Your task to perform on an android device: turn off picture-in-picture Image 0: 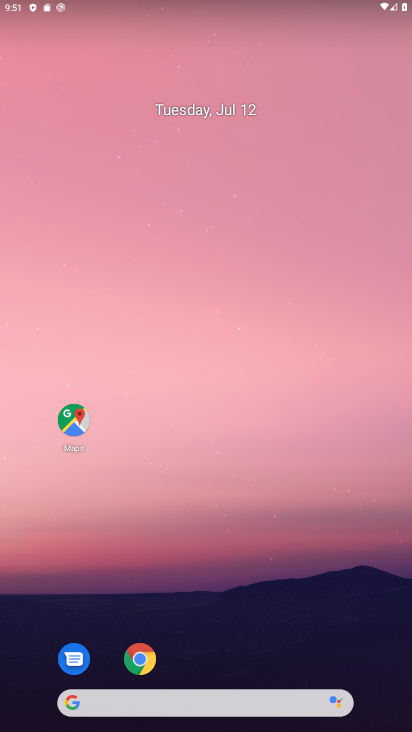
Step 0: drag from (260, 307) to (192, 139)
Your task to perform on an android device: turn off picture-in-picture Image 1: 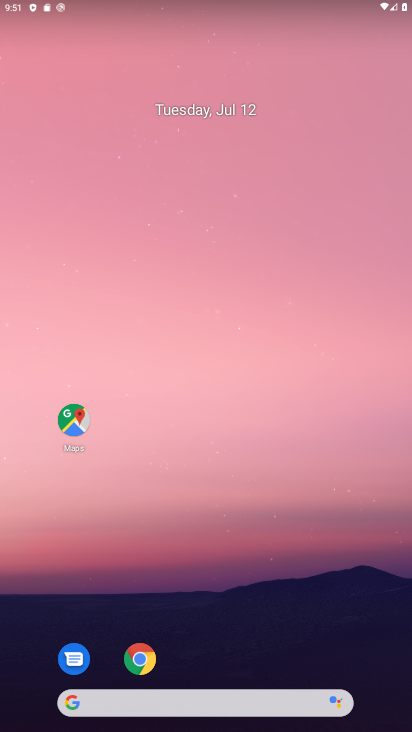
Step 1: click (145, 657)
Your task to perform on an android device: turn off picture-in-picture Image 2: 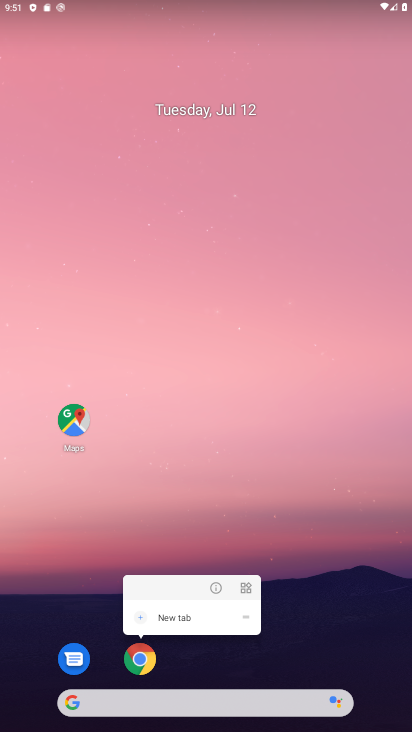
Step 2: click (219, 584)
Your task to perform on an android device: turn off picture-in-picture Image 3: 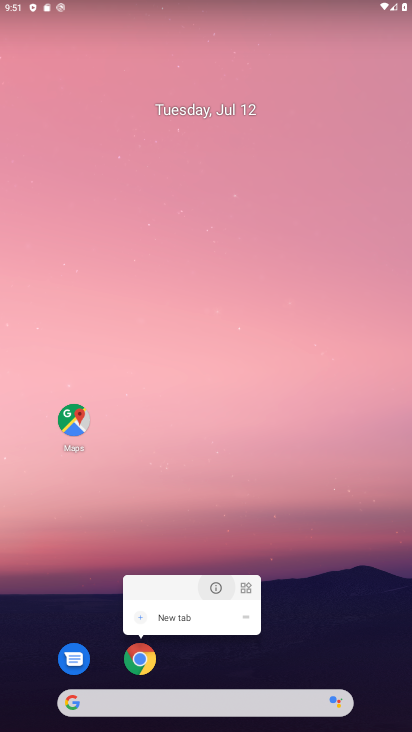
Step 3: click (219, 584)
Your task to perform on an android device: turn off picture-in-picture Image 4: 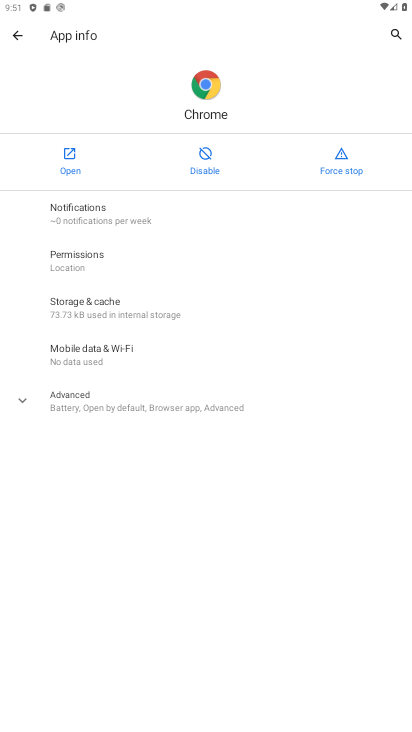
Step 4: click (76, 407)
Your task to perform on an android device: turn off picture-in-picture Image 5: 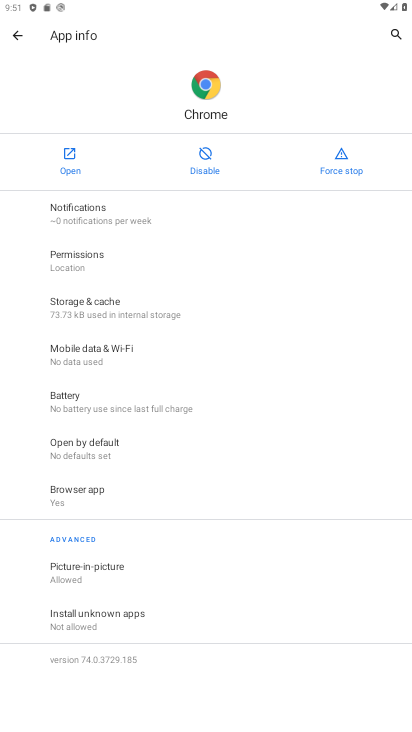
Step 5: drag from (106, 570) to (124, 285)
Your task to perform on an android device: turn off picture-in-picture Image 6: 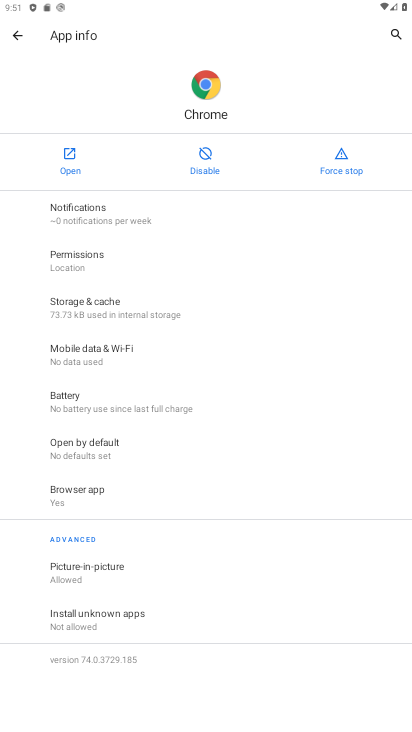
Step 6: drag from (137, 547) to (147, 256)
Your task to perform on an android device: turn off picture-in-picture Image 7: 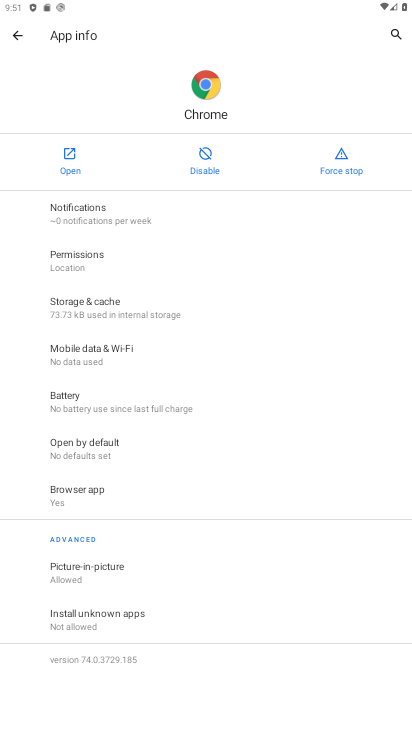
Step 7: drag from (111, 540) to (120, 211)
Your task to perform on an android device: turn off picture-in-picture Image 8: 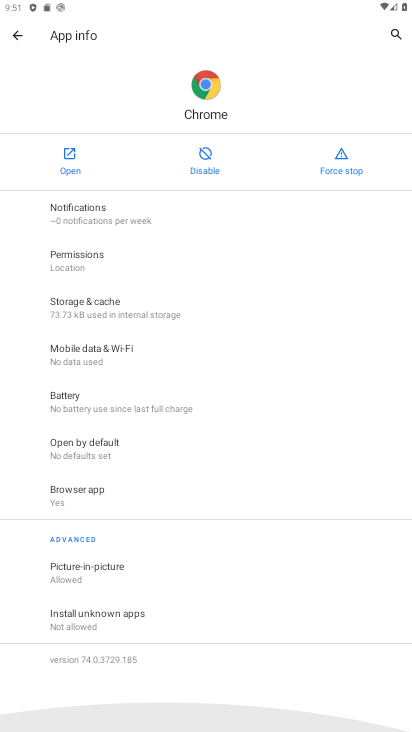
Step 8: drag from (146, 497) to (124, 211)
Your task to perform on an android device: turn off picture-in-picture Image 9: 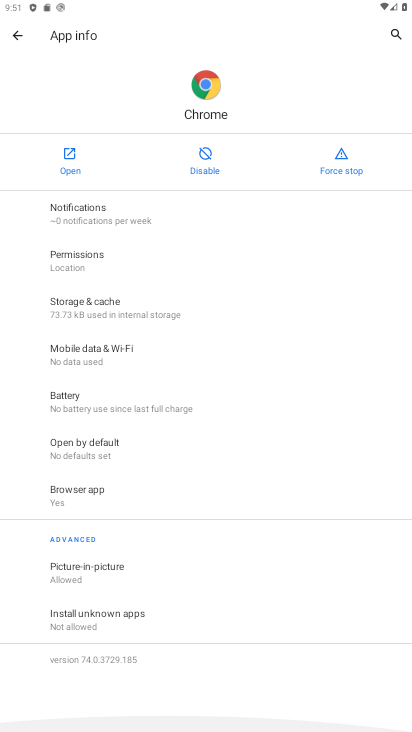
Step 9: drag from (162, 539) to (145, 264)
Your task to perform on an android device: turn off picture-in-picture Image 10: 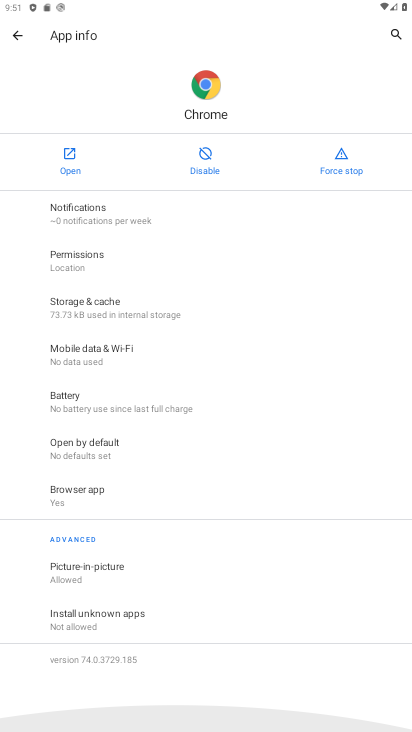
Step 10: drag from (139, 652) to (127, 315)
Your task to perform on an android device: turn off picture-in-picture Image 11: 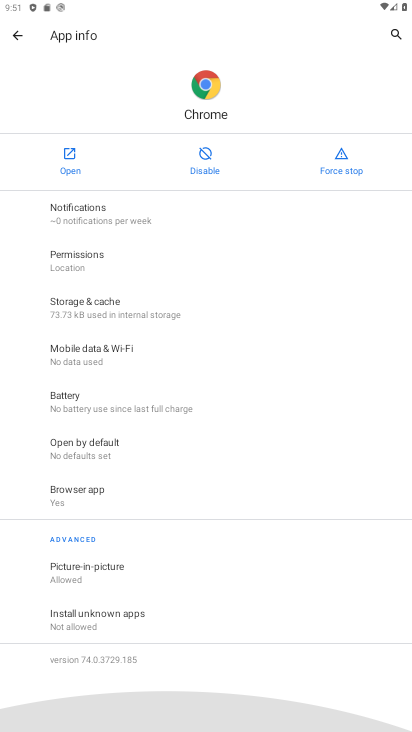
Step 11: drag from (133, 625) to (138, 482)
Your task to perform on an android device: turn off picture-in-picture Image 12: 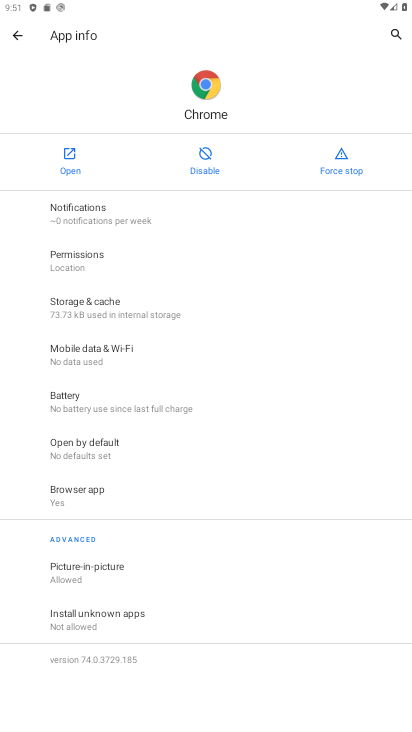
Step 12: click (80, 580)
Your task to perform on an android device: turn off picture-in-picture Image 13: 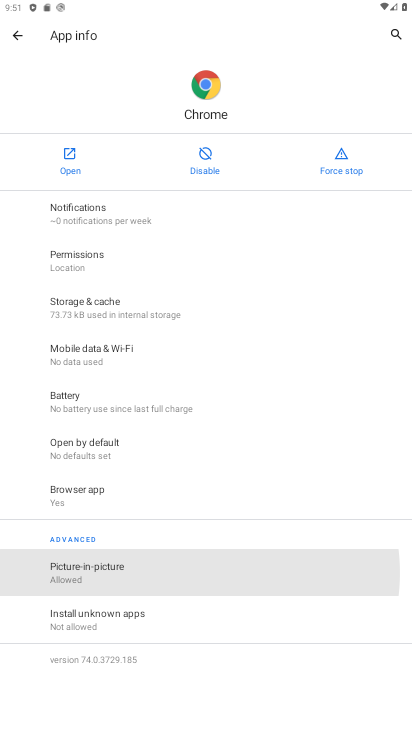
Step 13: click (78, 574)
Your task to perform on an android device: turn off picture-in-picture Image 14: 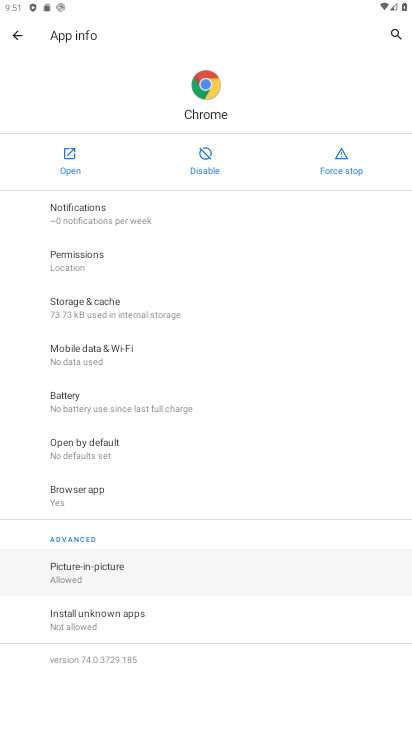
Step 14: click (81, 570)
Your task to perform on an android device: turn off picture-in-picture Image 15: 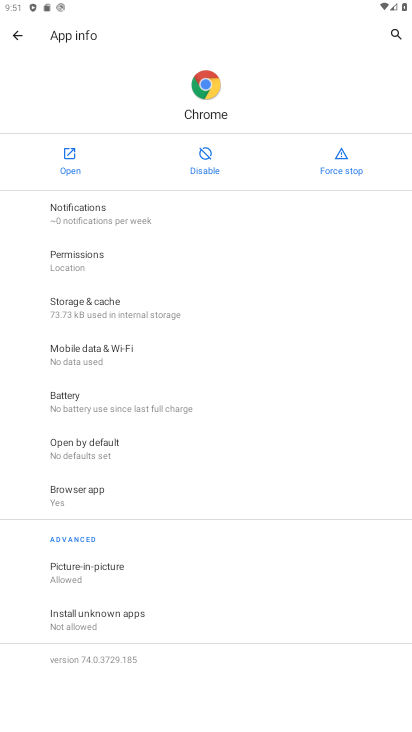
Step 15: click (84, 566)
Your task to perform on an android device: turn off picture-in-picture Image 16: 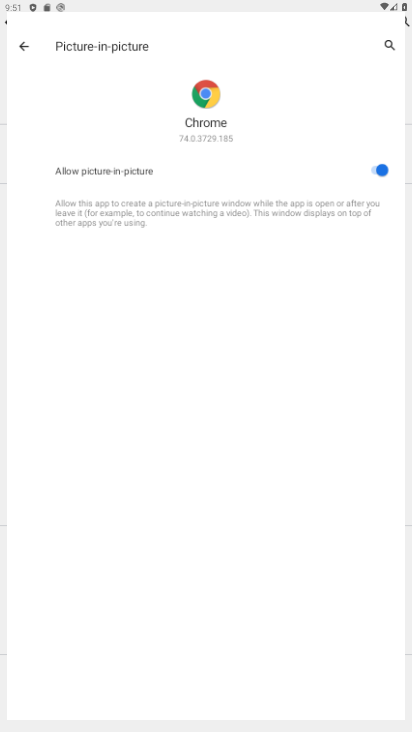
Step 16: click (89, 566)
Your task to perform on an android device: turn off picture-in-picture Image 17: 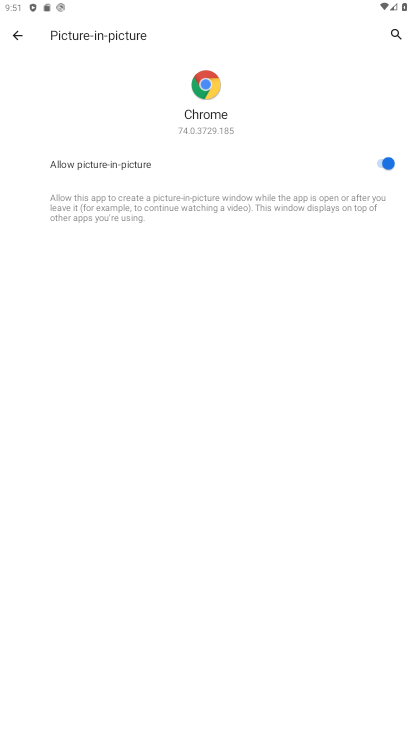
Step 17: click (89, 566)
Your task to perform on an android device: turn off picture-in-picture Image 18: 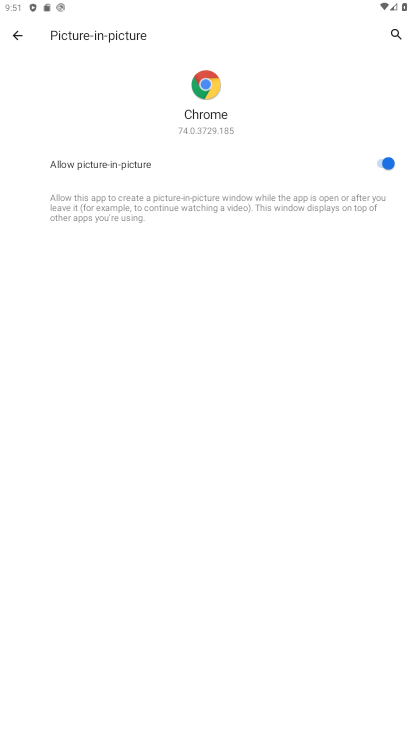
Step 18: click (382, 148)
Your task to perform on an android device: turn off picture-in-picture Image 19: 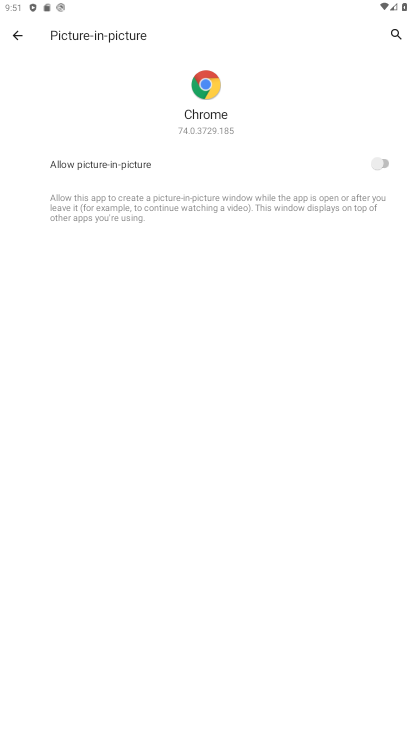
Step 19: task complete